Your task to perform on an android device: What's on my calendar tomorrow? Image 0: 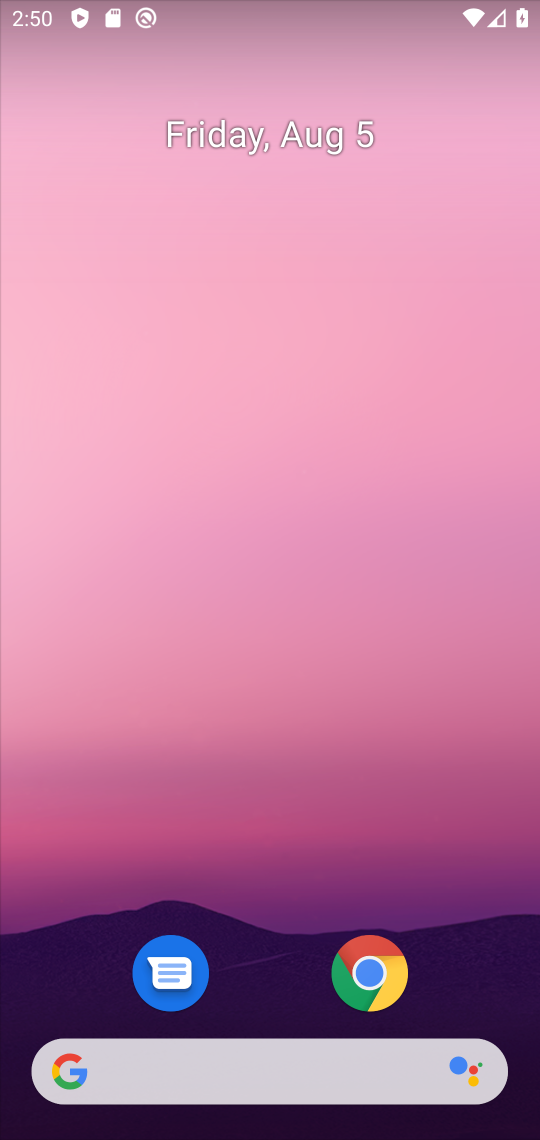
Step 0: drag from (269, 1027) to (220, 82)
Your task to perform on an android device: What's on my calendar tomorrow? Image 1: 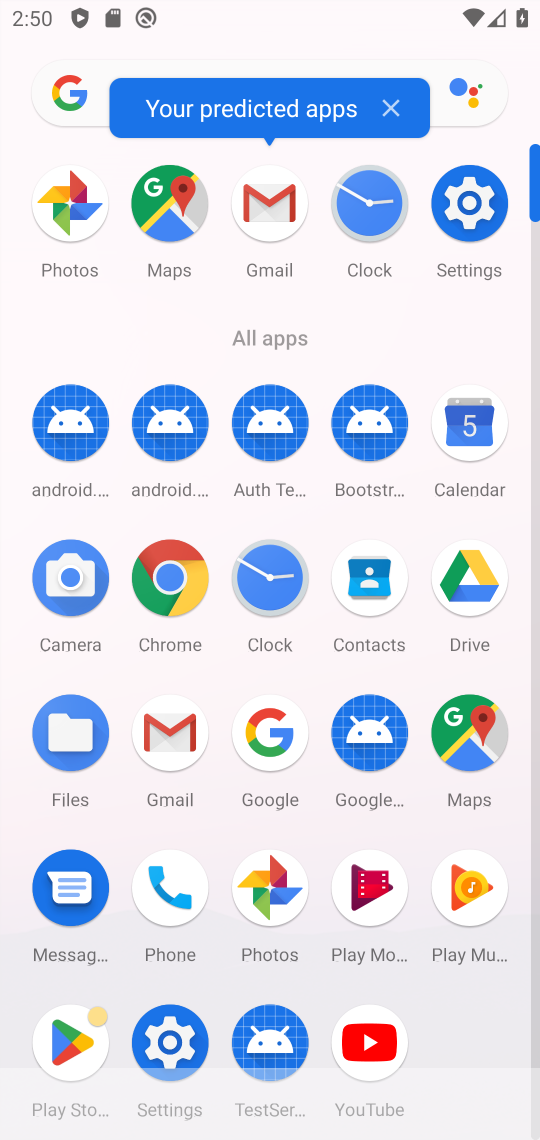
Step 1: click (459, 443)
Your task to perform on an android device: What's on my calendar tomorrow? Image 2: 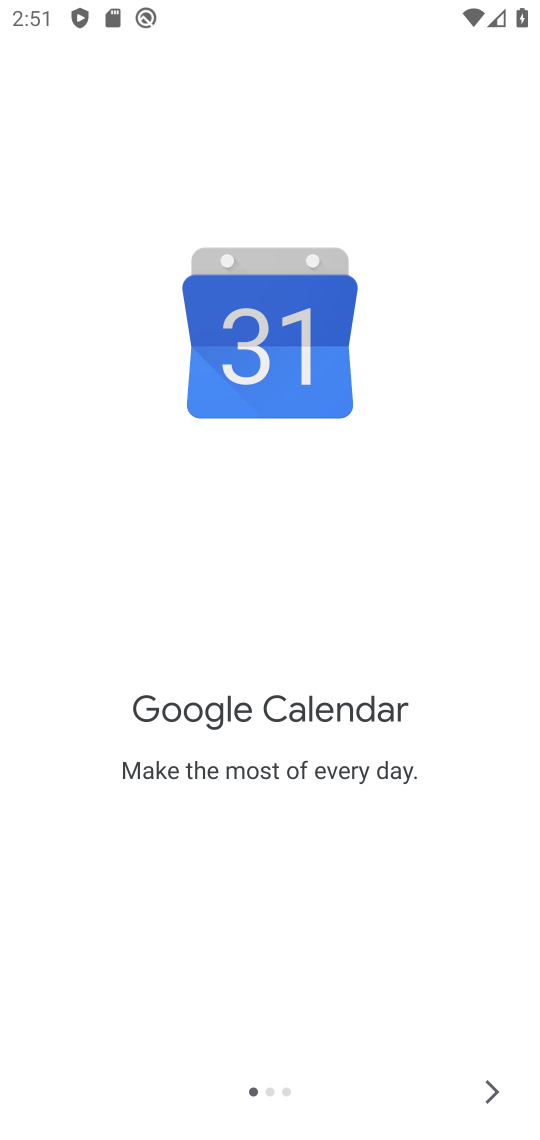
Step 2: click (498, 1104)
Your task to perform on an android device: What's on my calendar tomorrow? Image 3: 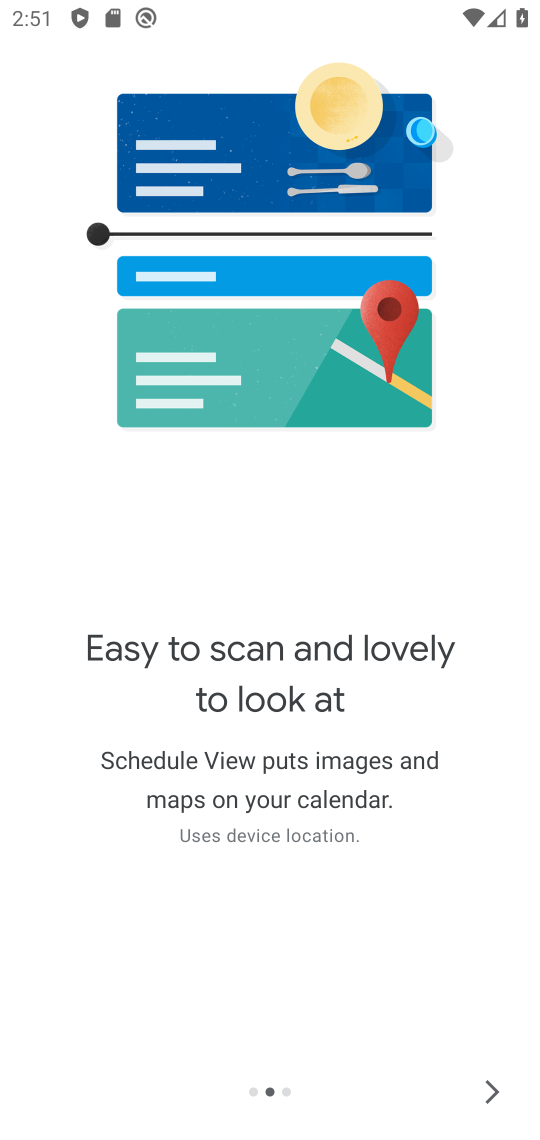
Step 3: click (494, 1086)
Your task to perform on an android device: What's on my calendar tomorrow? Image 4: 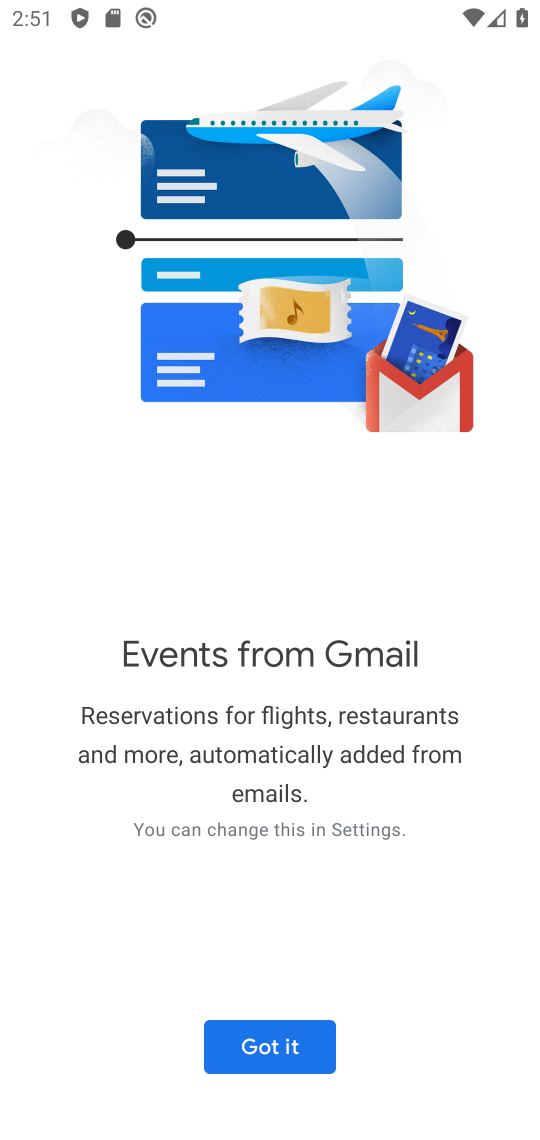
Step 4: click (285, 1053)
Your task to perform on an android device: What's on my calendar tomorrow? Image 5: 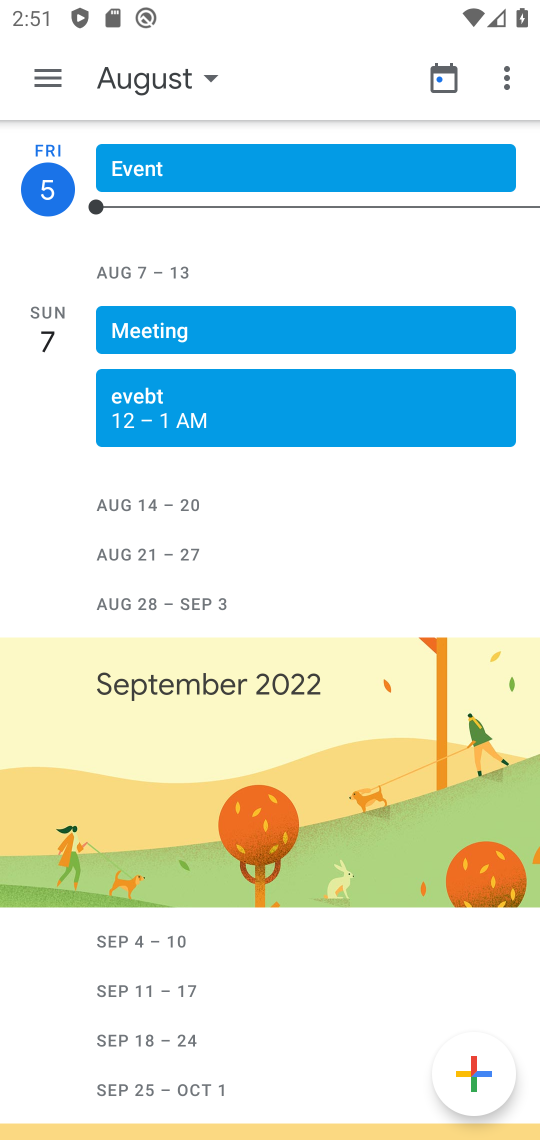
Step 5: click (36, 78)
Your task to perform on an android device: What's on my calendar tomorrow? Image 6: 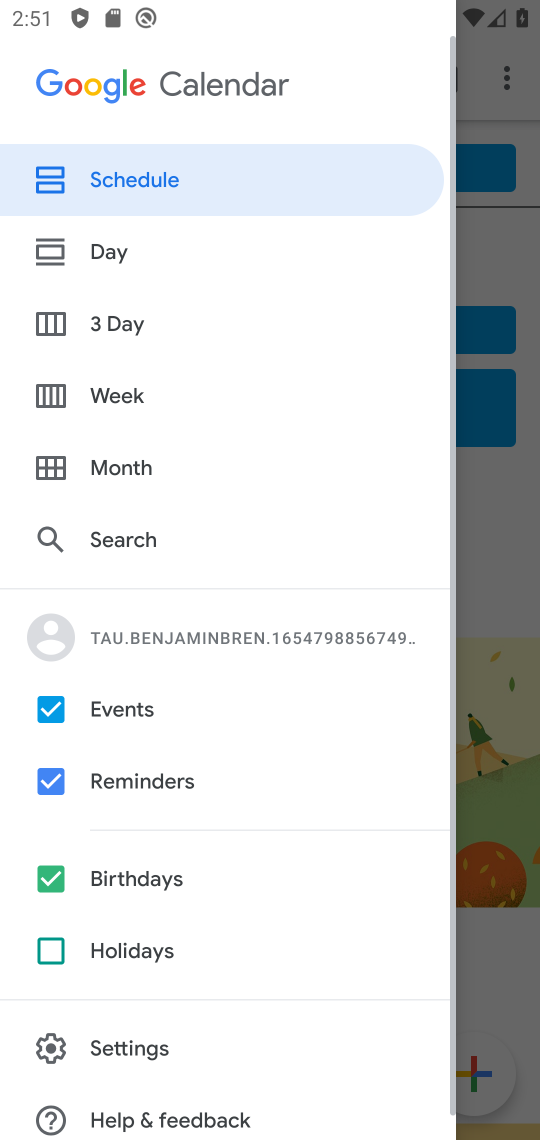
Step 6: click (112, 392)
Your task to perform on an android device: What's on my calendar tomorrow? Image 7: 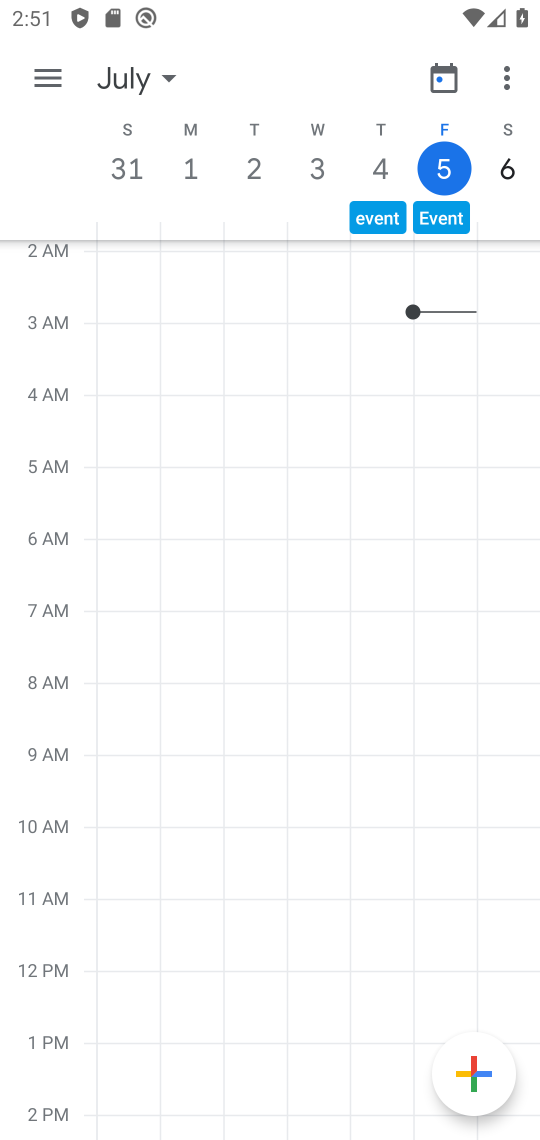
Step 7: click (489, 158)
Your task to perform on an android device: What's on my calendar tomorrow? Image 8: 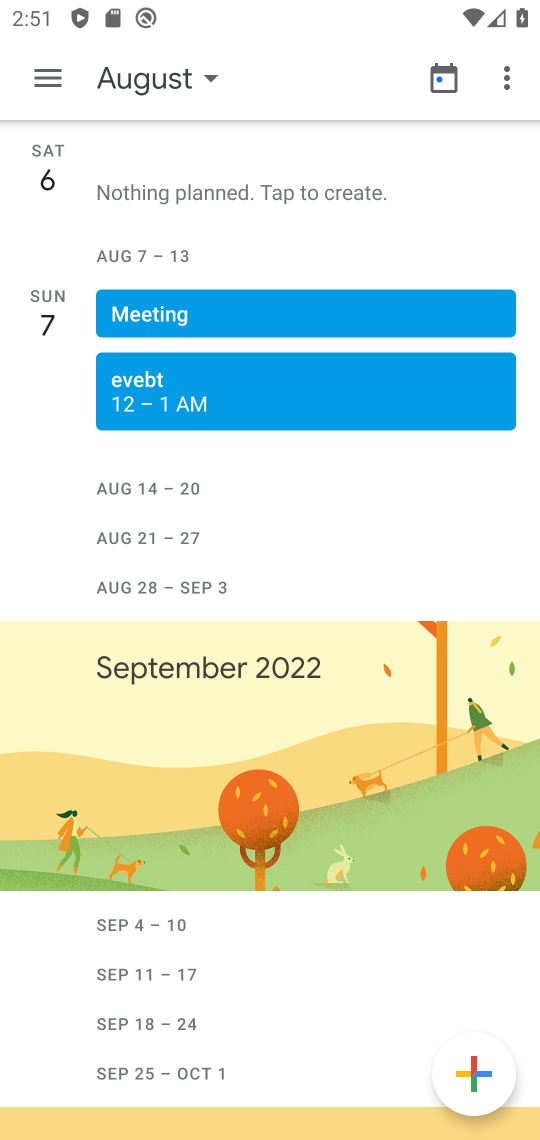
Step 8: task complete